Your task to perform on an android device: open chrome and create a bookmark for the current page Image 0: 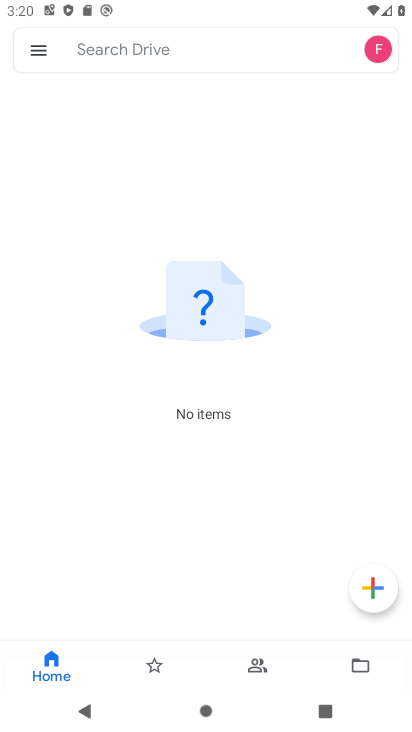
Step 0: press home button
Your task to perform on an android device: open chrome and create a bookmark for the current page Image 1: 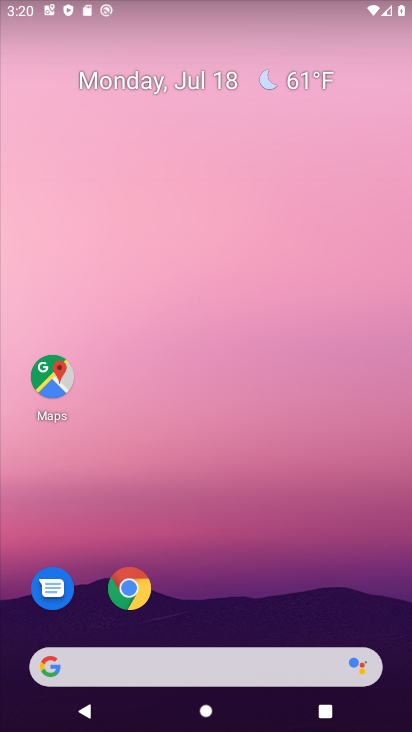
Step 1: click (124, 579)
Your task to perform on an android device: open chrome and create a bookmark for the current page Image 2: 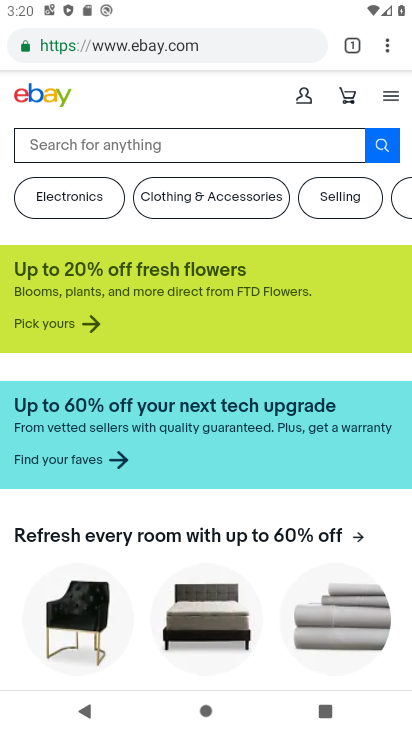
Step 2: click (383, 46)
Your task to perform on an android device: open chrome and create a bookmark for the current page Image 3: 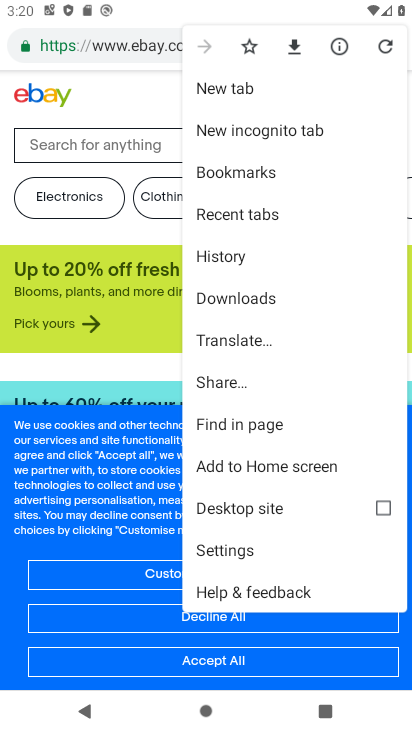
Step 3: click (262, 558)
Your task to perform on an android device: open chrome and create a bookmark for the current page Image 4: 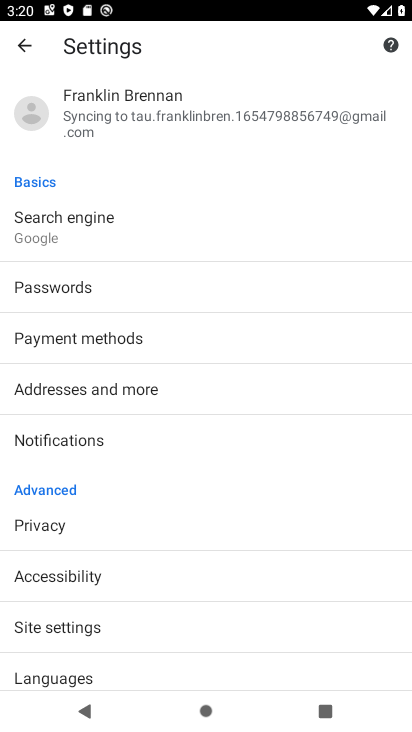
Step 4: task complete